Your task to perform on an android device: turn on showing notifications on the lock screen Image 0: 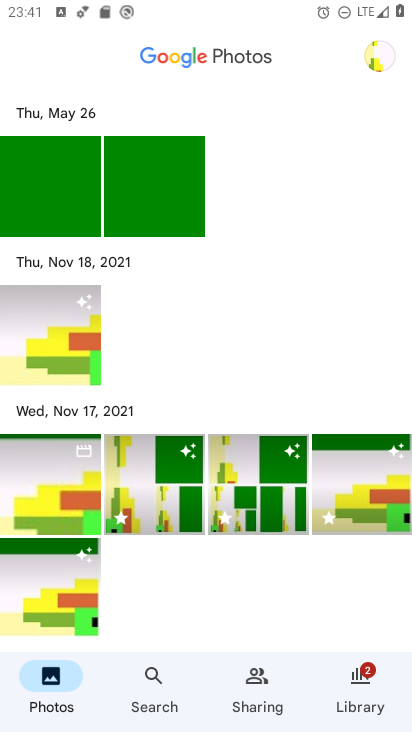
Step 0: press home button
Your task to perform on an android device: turn on showing notifications on the lock screen Image 1: 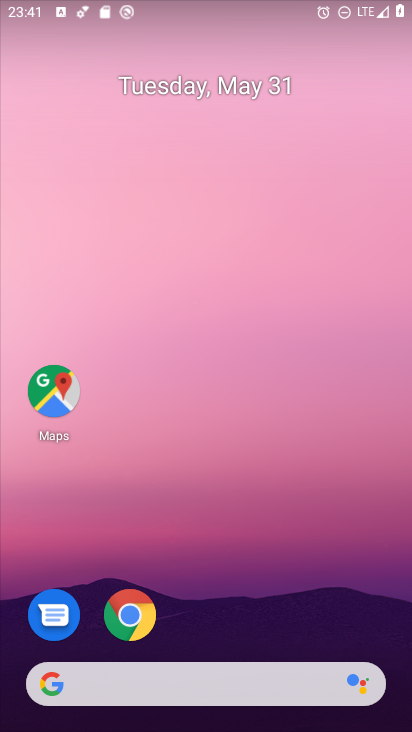
Step 1: drag from (394, 691) to (320, 176)
Your task to perform on an android device: turn on showing notifications on the lock screen Image 2: 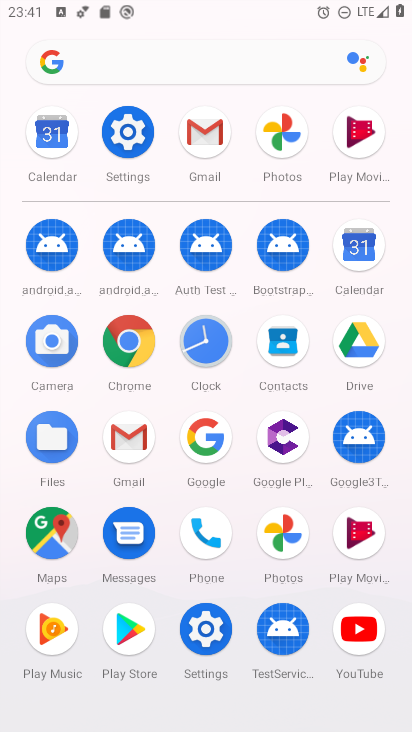
Step 2: click (206, 631)
Your task to perform on an android device: turn on showing notifications on the lock screen Image 3: 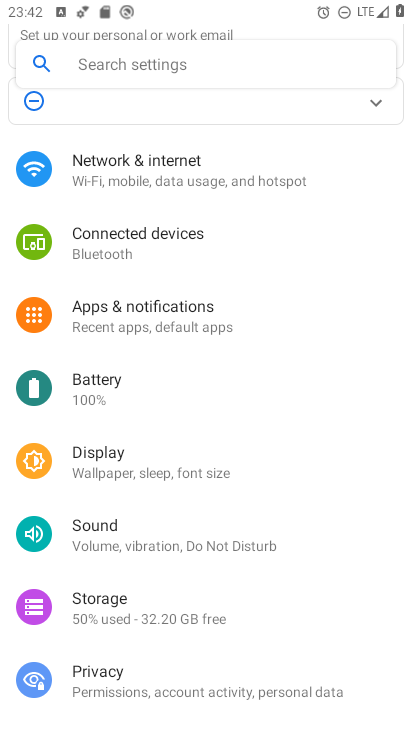
Step 3: click (144, 298)
Your task to perform on an android device: turn on showing notifications on the lock screen Image 4: 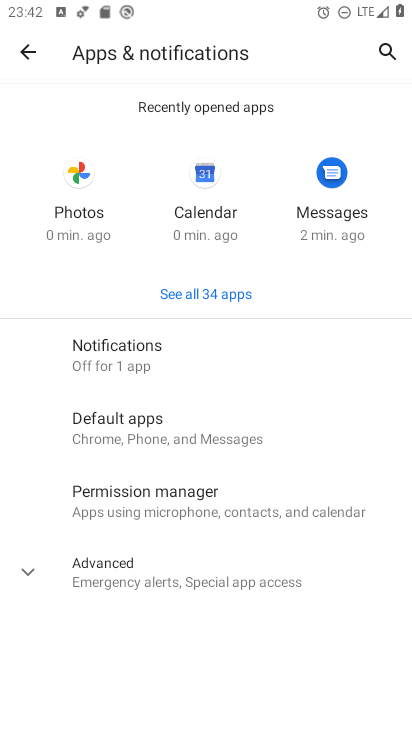
Step 4: click (130, 360)
Your task to perform on an android device: turn on showing notifications on the lock screen Image 5: 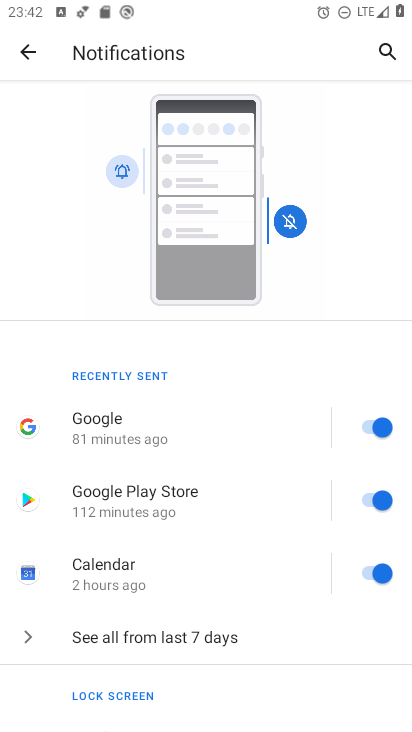
Step 5: drag from (237, 659) to (310, 178)
Your task to perform on an android device: turn on showing notifications on the lock screen Image 6: 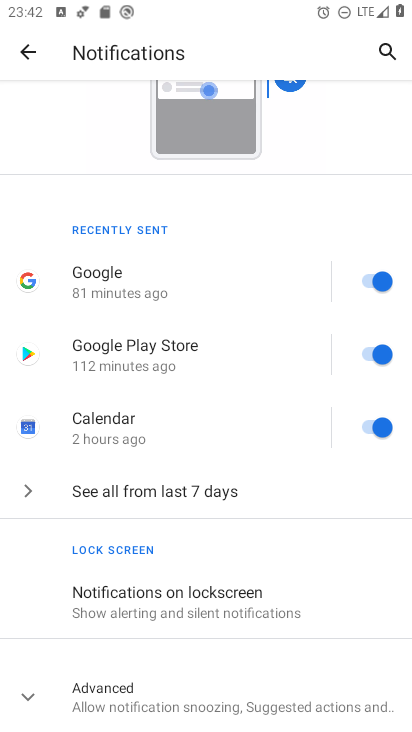
Step 6: click (161, 595)
Your task to perform on an android device: turn on showing notifications on the lock screen Image 7: 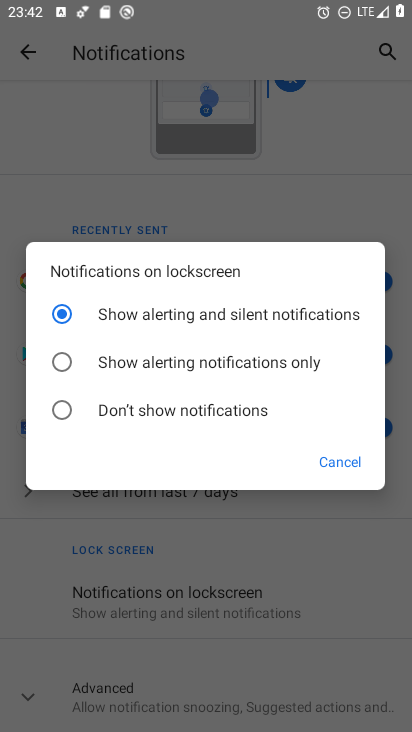
Step 7: task complete